Your task to perform on an android device: choose inbox layout in the gmail app Image 0: 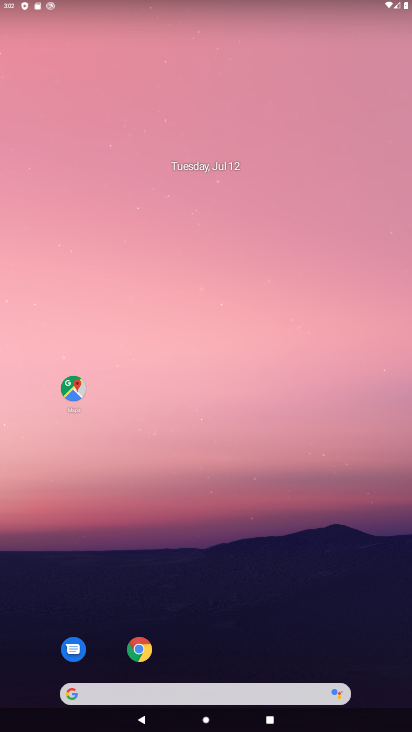
Step 0: drag from (251, 664) to (275, 201)
Your task to perform on an android device: choose inbox layout in the gmail app Image 1: 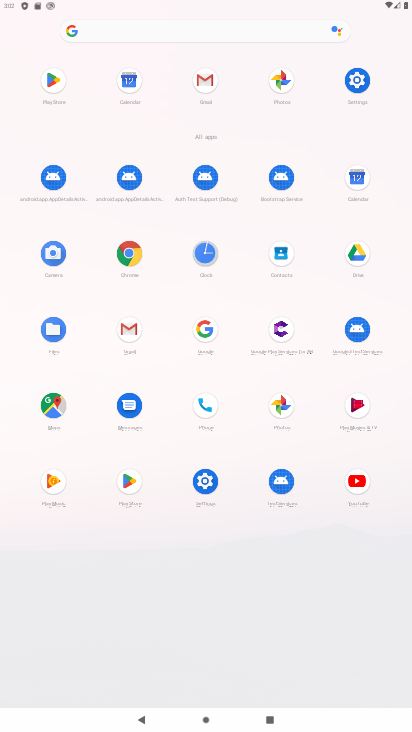
Step 1: click (124, 327)
Your task to perform on an android device: choose inbox layout in the gmail app Image 2: 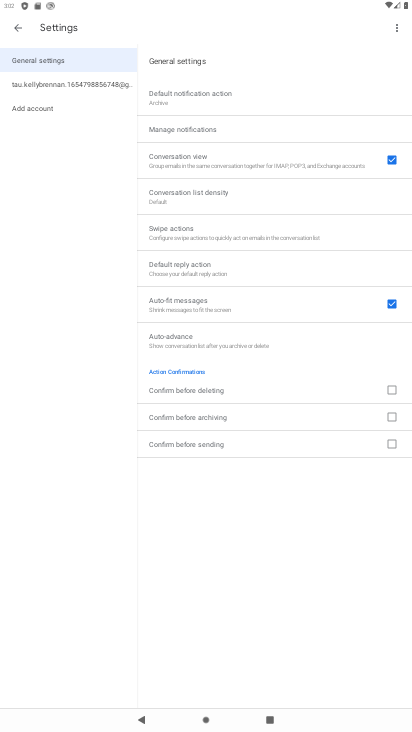
Step 2: click (69, 89)
Your task to perform on an android device: choose inbox layout in the gmail app Image 3: 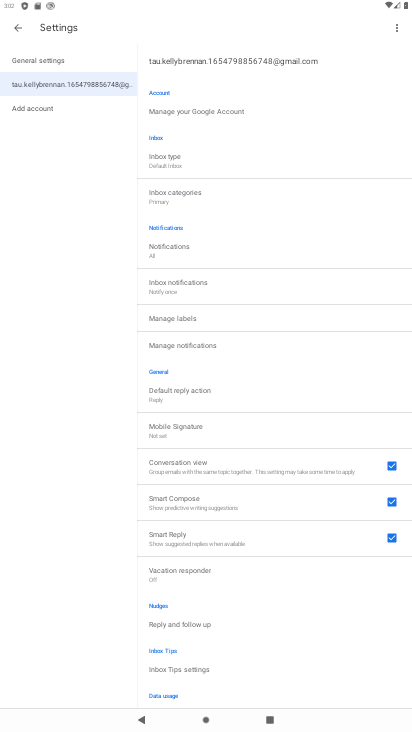
Step 3: click (166, 157)
Your task to perform on an android device: choose inbox layout in the gmail app Image 4: 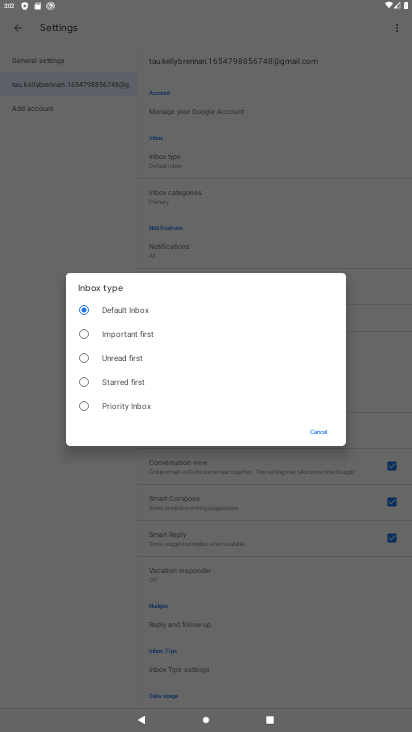
Step 4: click (127, 401)
Your task to perform on an android device: choose inbox layout in the gmail app Image 5: 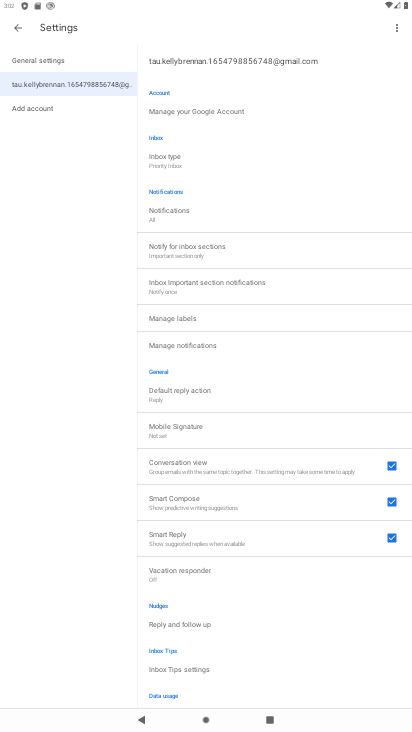
Step 5: task complete